Your task to perform on an android device: Go to Yahoo.com Image 0: 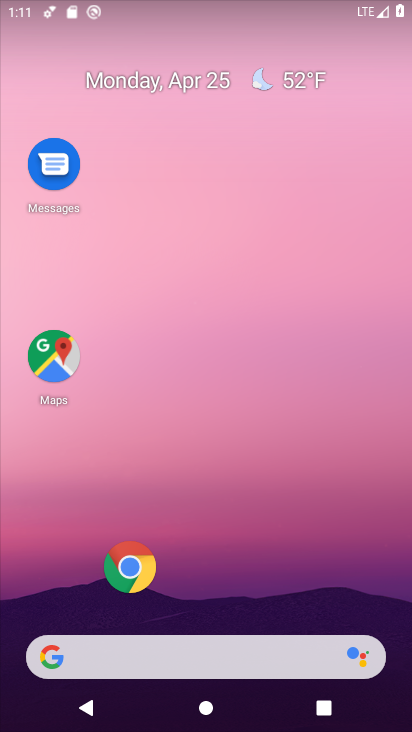
Step 0: drag from (311, 434) to (311, 24)
Your task to perform on an android device: Go to Yahoo.com Image 1: 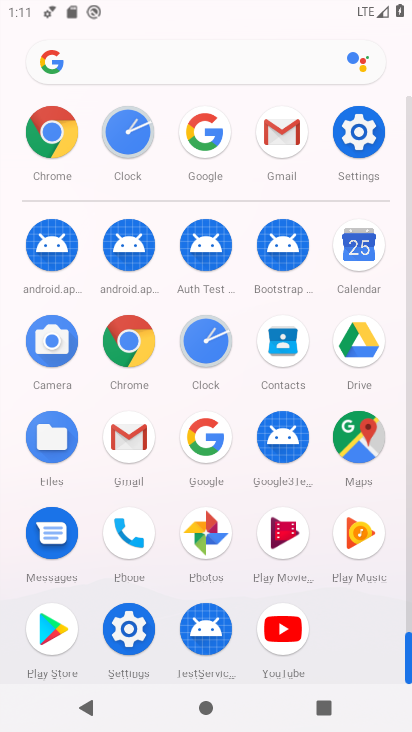
Step 1: click (69, 135)
Your task to perform on an android device: Go to Yahoo.com Image 2: 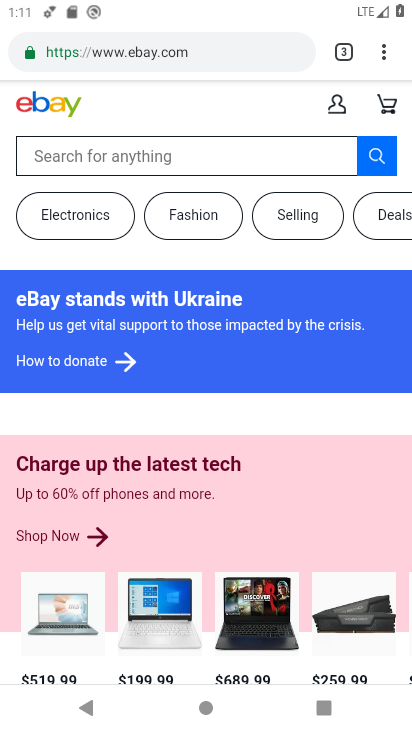
Step 2: click (201, 47)
Your task to perform on an android device: Go to Yahoo.com Image 3: 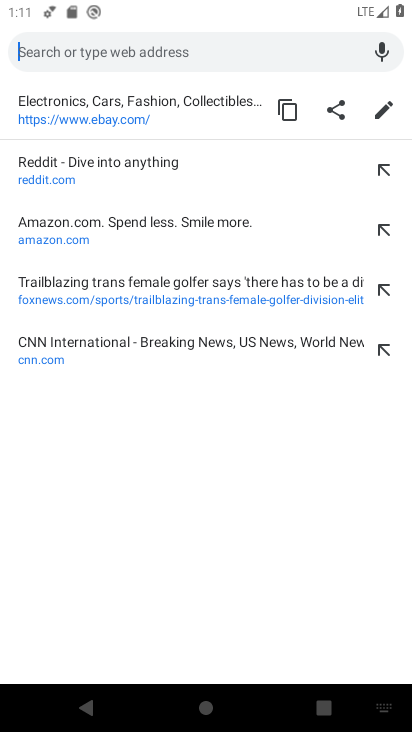
Step 3: type "yahoo.com"
Your task to perform on an android device: Go to Yahoo.com Image 4: 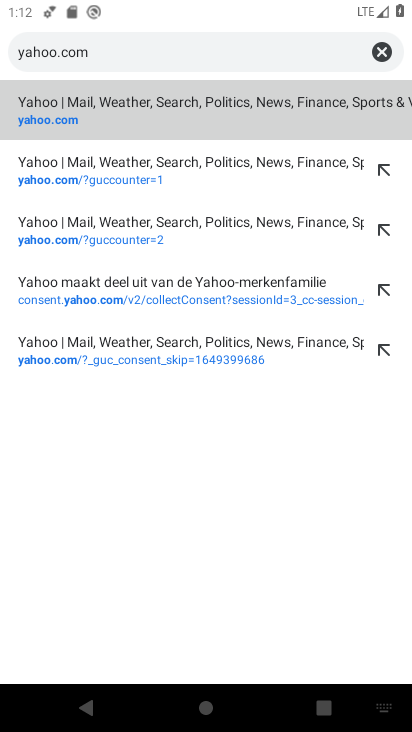
Step 4: click (263, 127)
Your task to perform on an android device: Go to Yahoo.com Image 5: 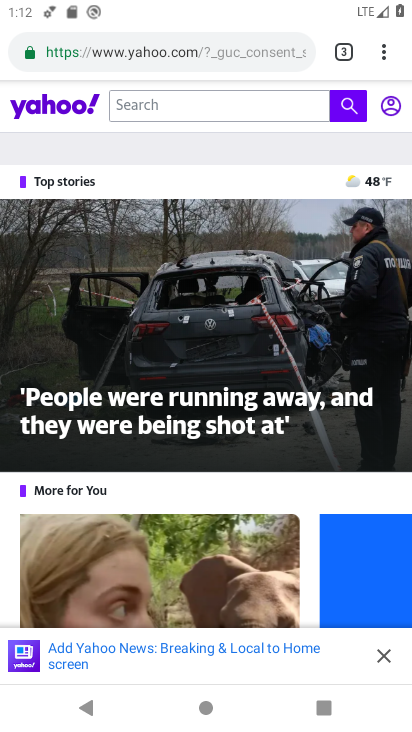
Step 5: task complete